Your task to perform on an android device: What's the news about the US economy? Image 0: 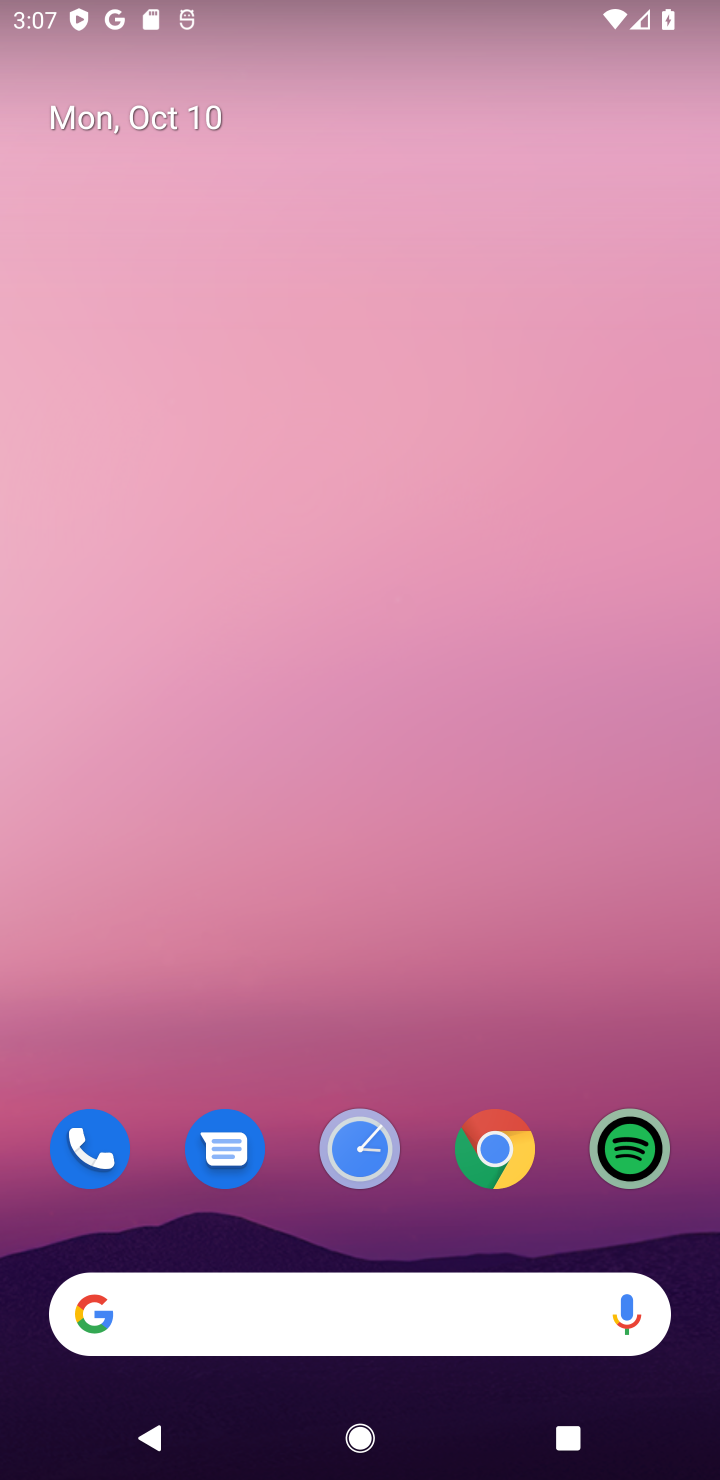
Step 0: click (424, 1308)
Your task to perform on an android device: What's the news about the US economy? Image 1: 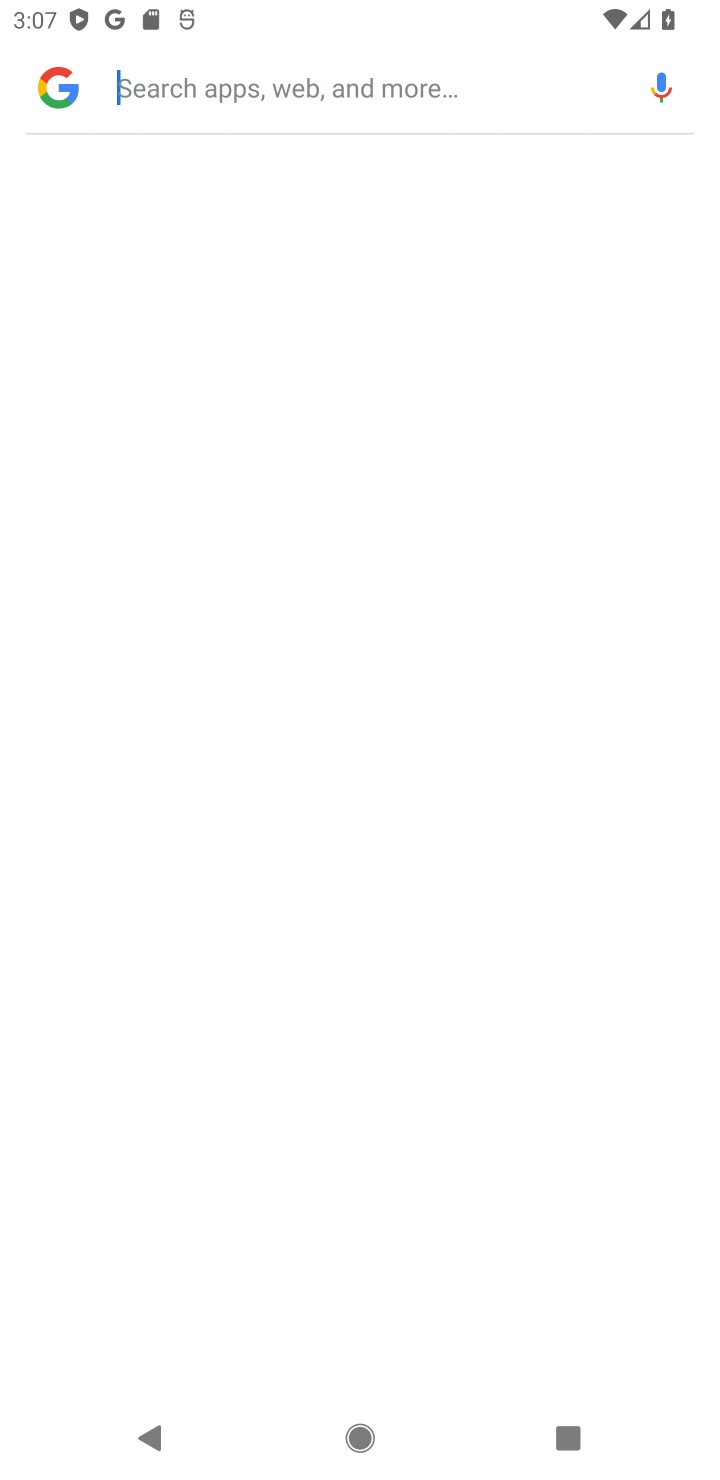
Step 1: type "news about the US economy"
Your task to perform on an android device: What's the news about the US economy? Image 2: 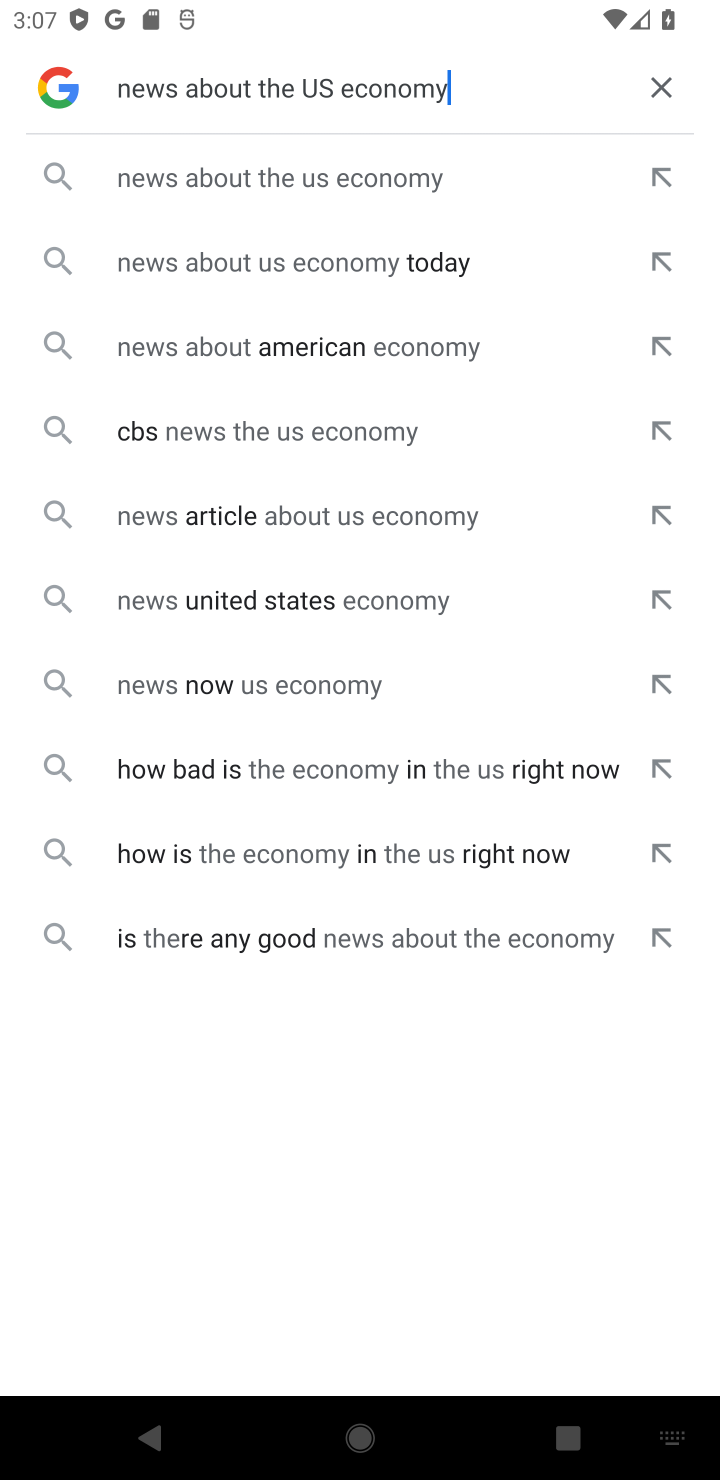
Step 2: click (329, 203)
Your task to perform on an android device: What's the news about the US economy? Image 3: 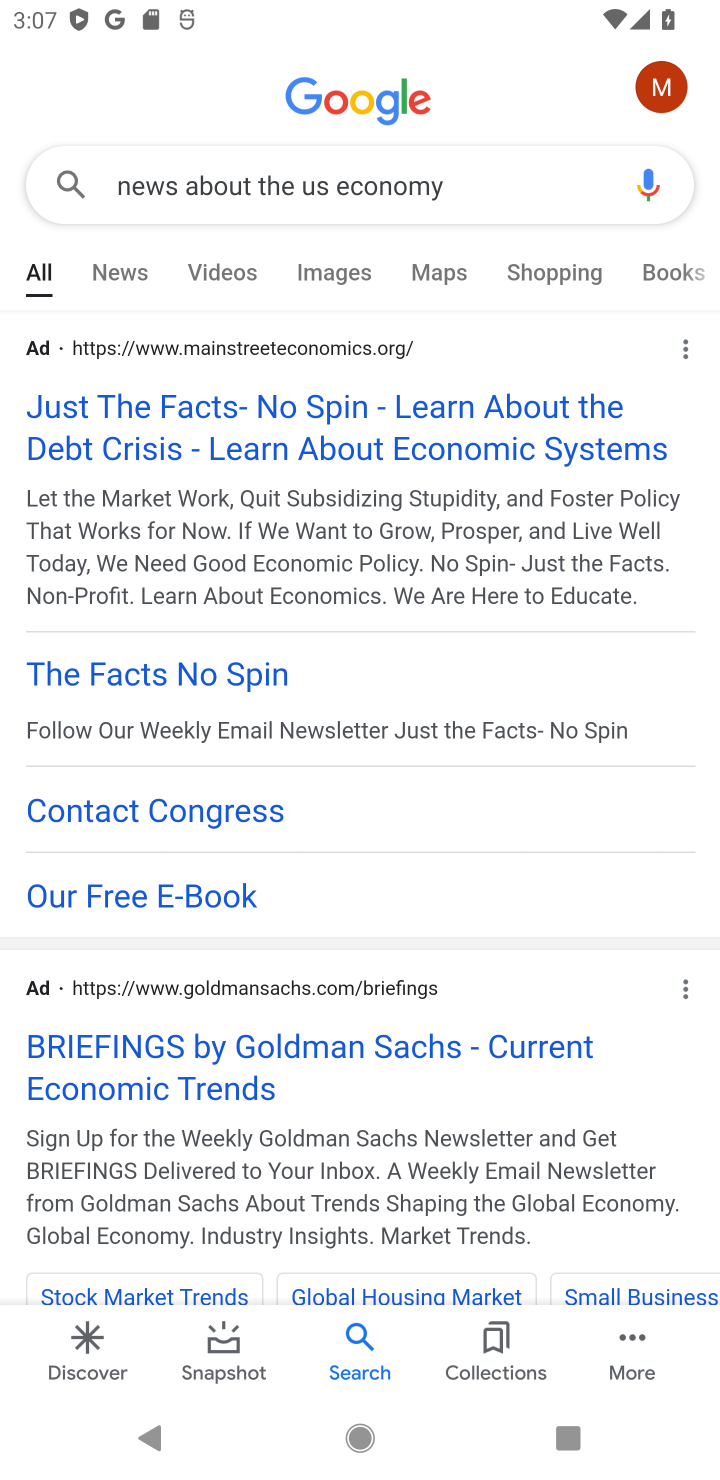
Step 3: task complete